Your task to perform on an android device: change alarm snooze length Image 0: 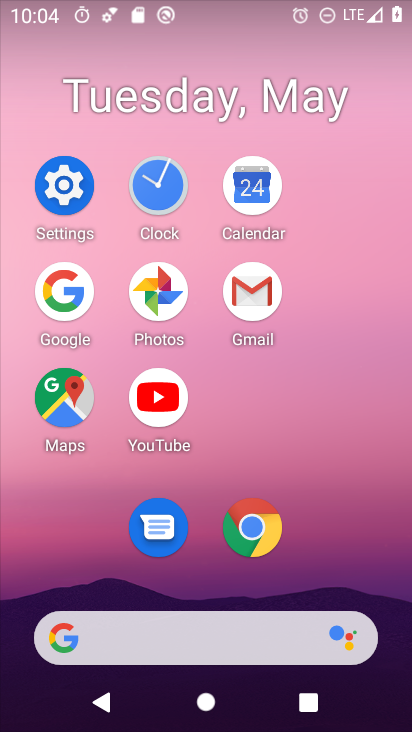
Step 0: click (159, 200)
Your task to perform on an android device: change alarm snooze length Image 1: 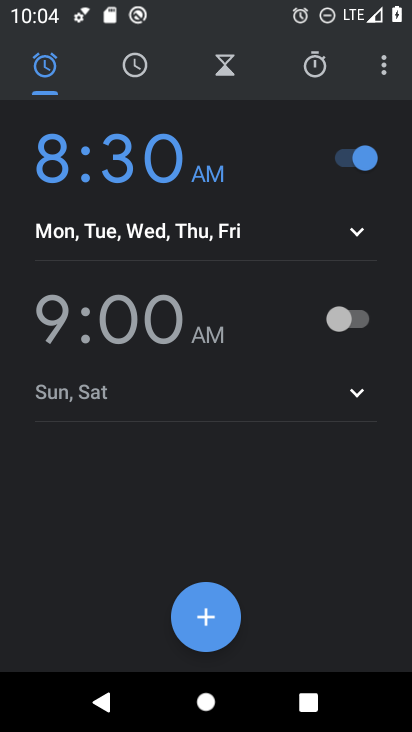
Step 1: click (395, 67)
Your task to perform on an android device: change alarm snooze length Image 2: 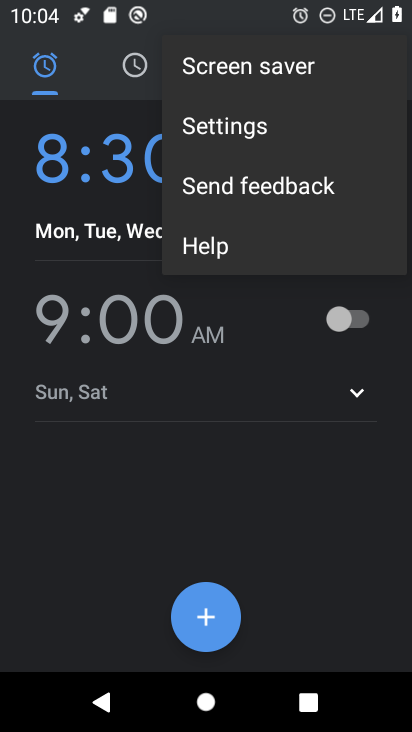
Step 2: click (298, 117)
Your task to perform on an android device: change alarm snooze length Image 3: 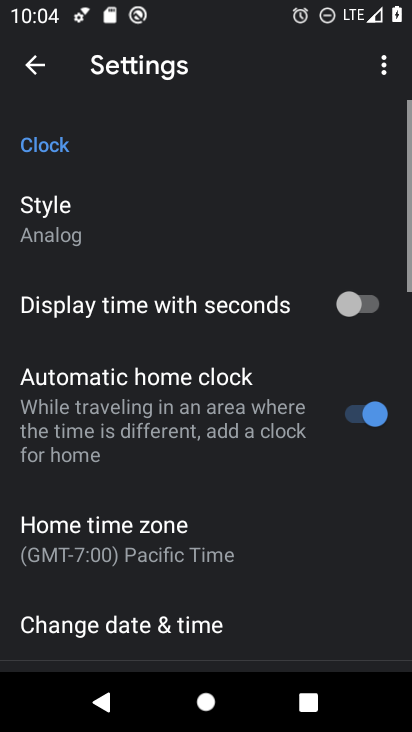
Step 3: drag from (133, 528) to (171, 177)
Your task to perform on an android device: change alarm snooze length Image 4: 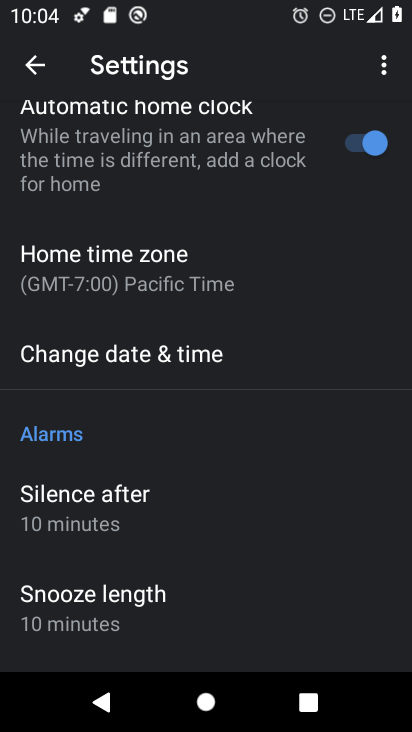
Step 4: drag from (135, 465) to (188, 212)
Your task to perform on an android device: change alarm snooze length Image 5: 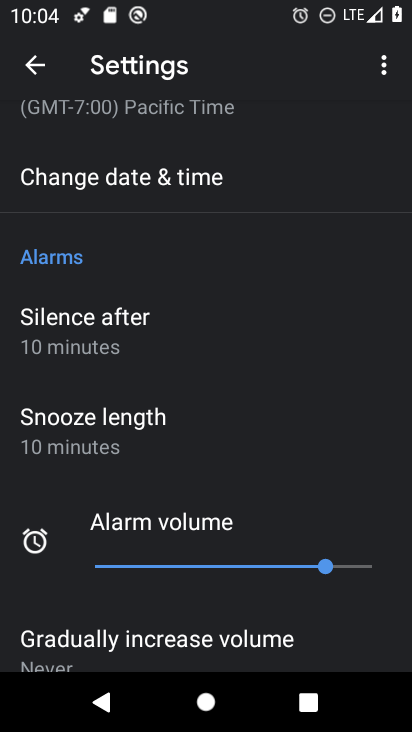
Step 5: click (104, 426)
Your task to perform on an android device: change alarm snooze length Image 6: 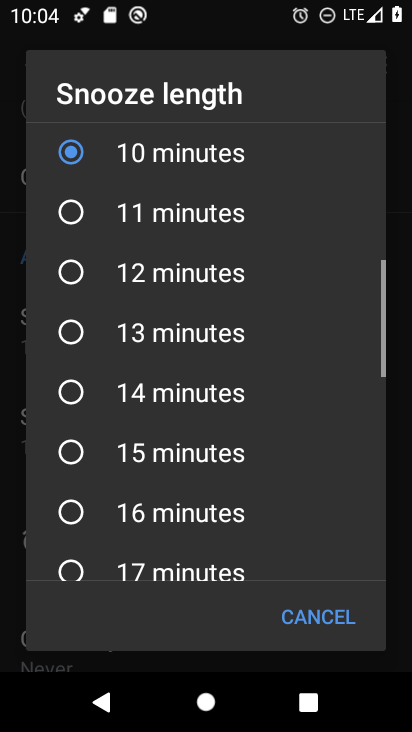
Step 6: click (188, 198)
Your task to perform on an android device: change alarm snooze length Image 7: 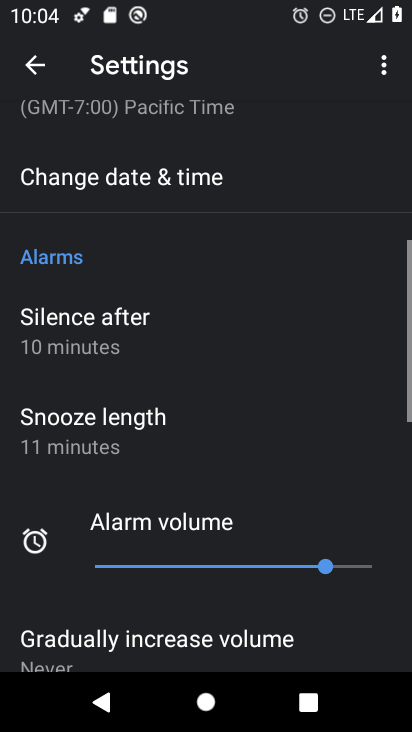
Step 7: task complete